Your task to perform on an android device: turn off translation in the chrome app Image 0: 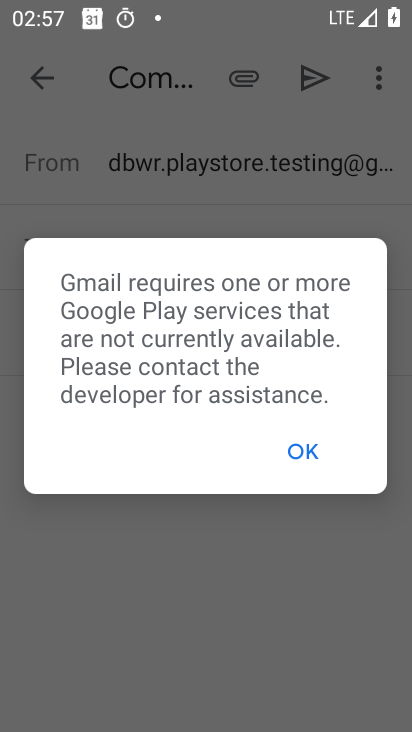
Step 0: press home button
Your task to perform on an android device: turn off translation in the chrome app Image 1: 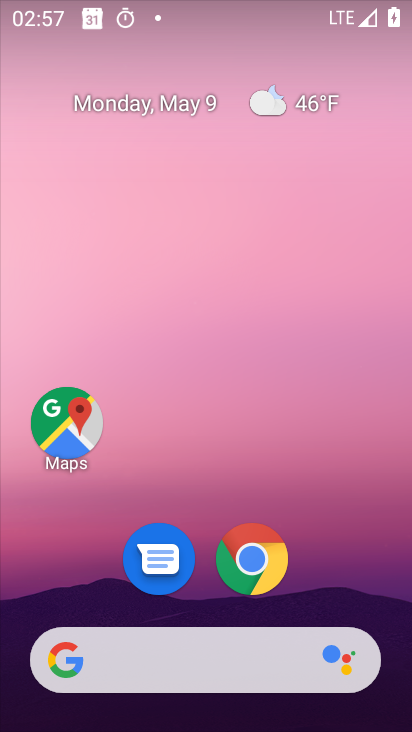
Step 1: click (255, 560)
Your task to perform on an android device: turn off translation in the chrome app Image 2: 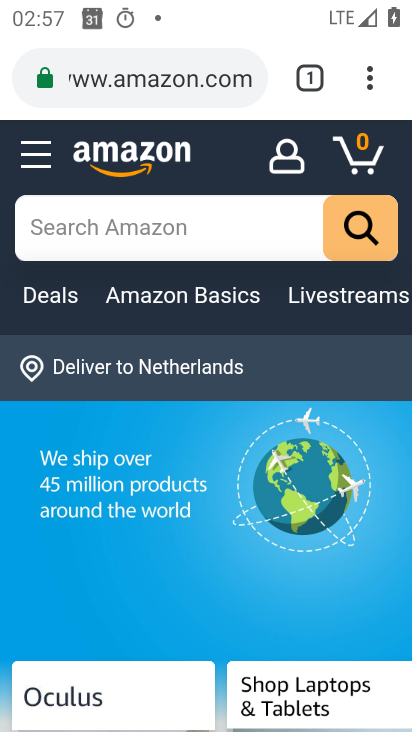
Step 2: click (370, 77)
Your task to perform on an android device: turn off translation in the chrome app Image 3: 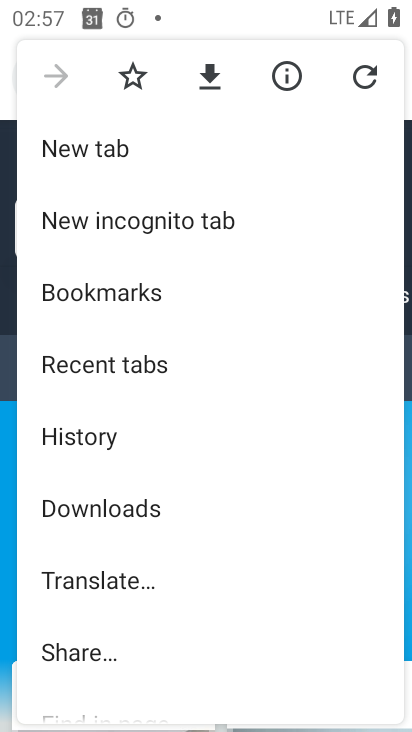
Step 3: drag from (140, 686) to (260, 341)
Your task to perform on an android device: turn off translation in the chrome app Image 4: 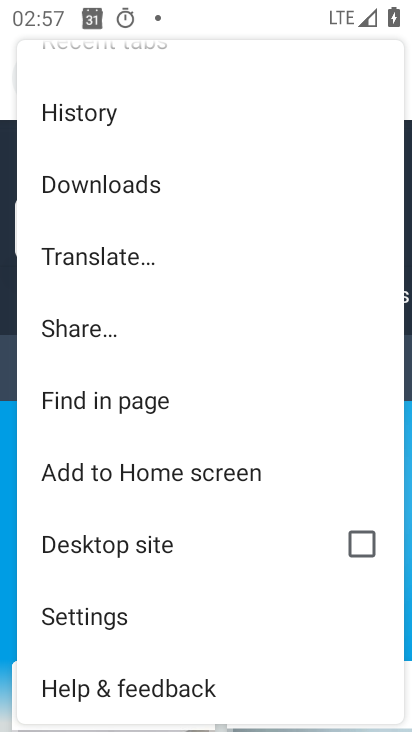
Step 4: click (85, 616)
Your task to perform on an android device: turn off translation in the chrome app Image 5: 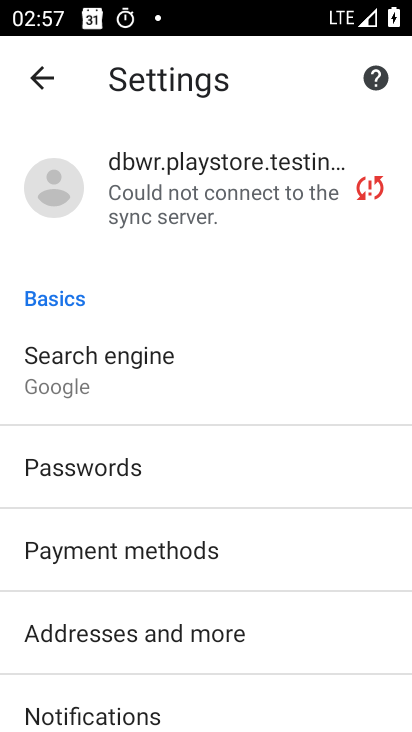
Step 5: drag from (93, 610) to (152, 473)
Your task to perform on an android device: turn off translation in the chrome app Image 6: 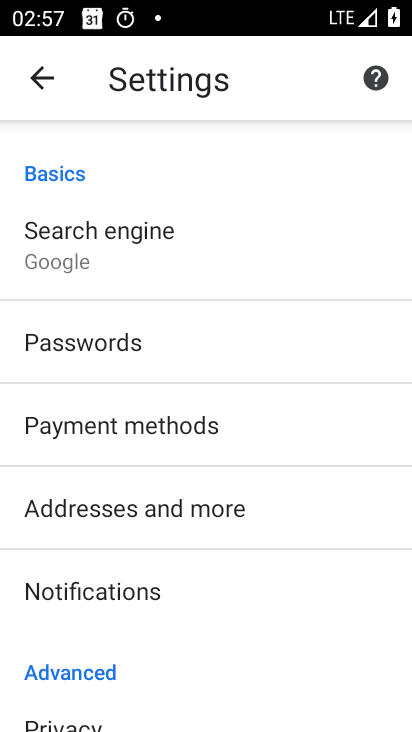
Step 6: drag from (114, 643) to (132, 512)
Your task to perform on an android device: turn off translation in the chrome app Image 7: 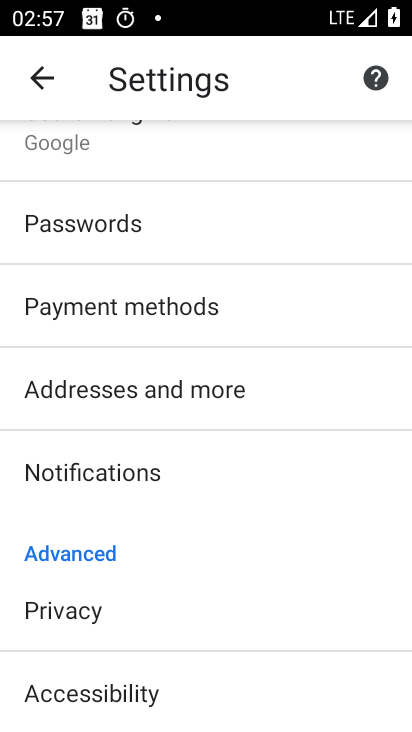
Step 7: drag from (153, 624) to (172, 454)
Your task to perform on an android device: turn off translation in the chrome app Image 8: 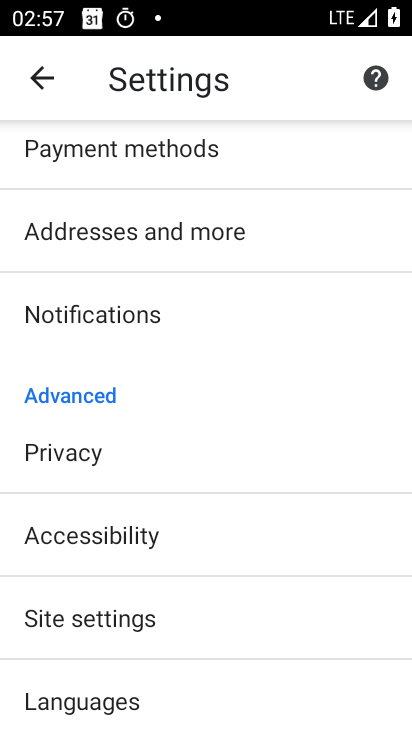
Step 8: drag from (184, 624) to (259, 508)
Your task to perform on an android device: turn off translation in the chrome app Image 9: 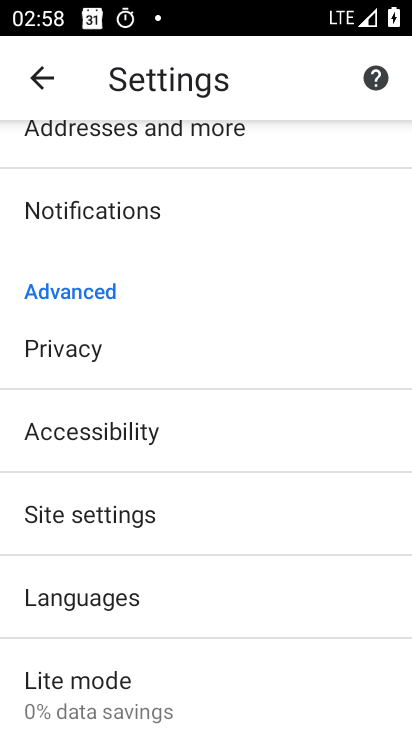
Step 9: click (111, 592)
Your task to perform on an android device: turn off translation in the chrome app Image 10: 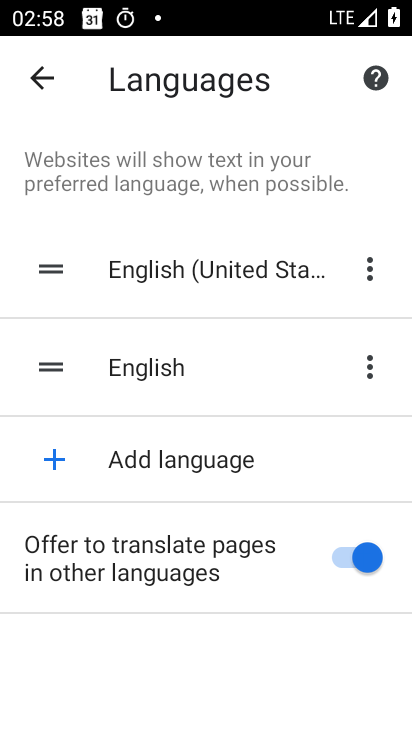
Step 10: click (367, 570)
Your task to perform on an android device: turn off translation in the chrome app Image 11: 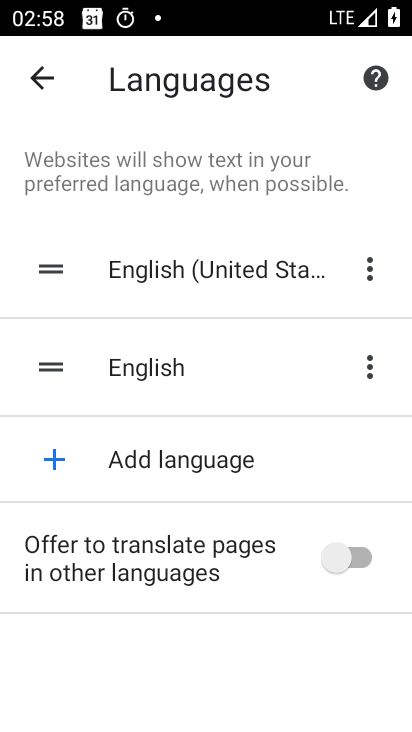
Step 11: task complete